Your task to perform on an android device: change timer sound Image 0: 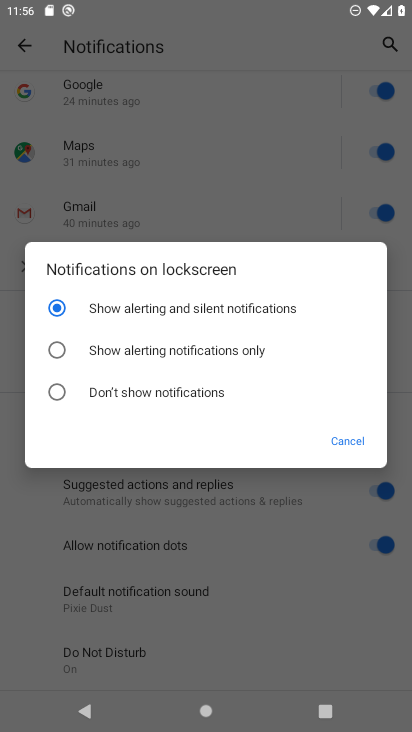
Step 0: press home button
Your task to perform on an android device: change timer sound Image 1: 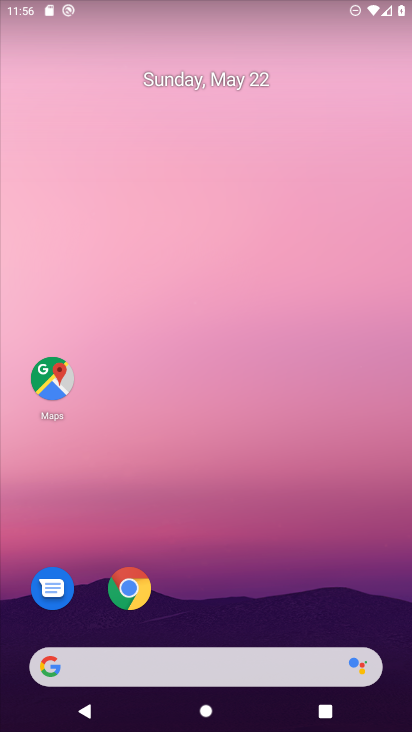
Step 1: drag from (267, 639) to (341, 100)
Your task to perform on an android device: change timer sound Image 2: 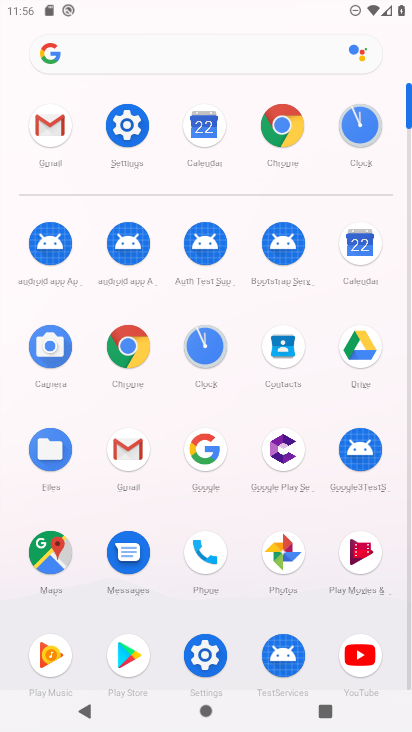
Step 2: click (203, 346)
Your task to perform on an android device: change timer sound Image 3: 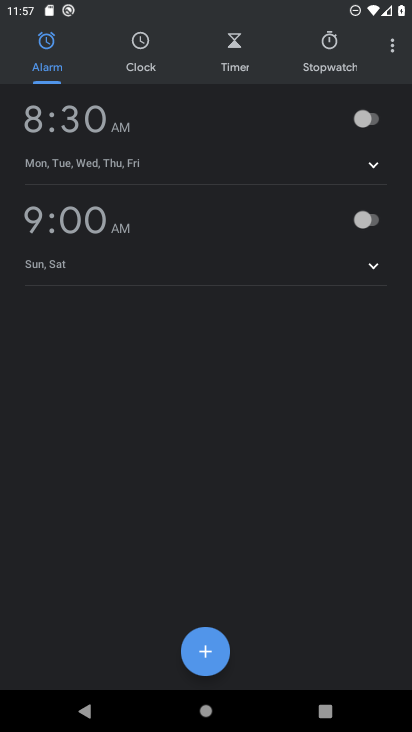
Step 3: click (397, 53)
Your task to perform on an android device: change timer sound Image 4: 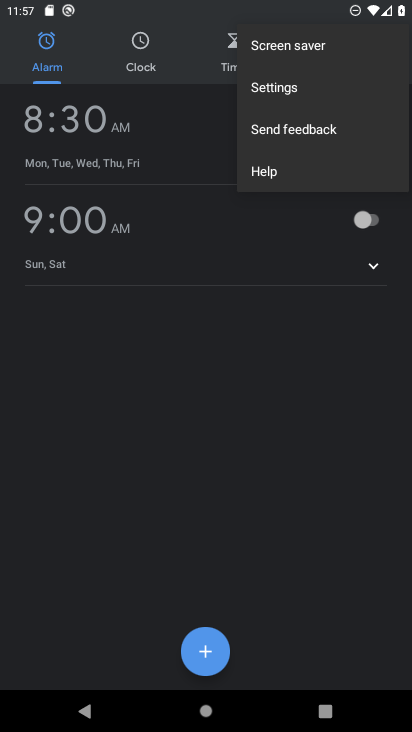
Step 4: click (263, 77)
Your task to perform on an android device: change timer sound Image 5: 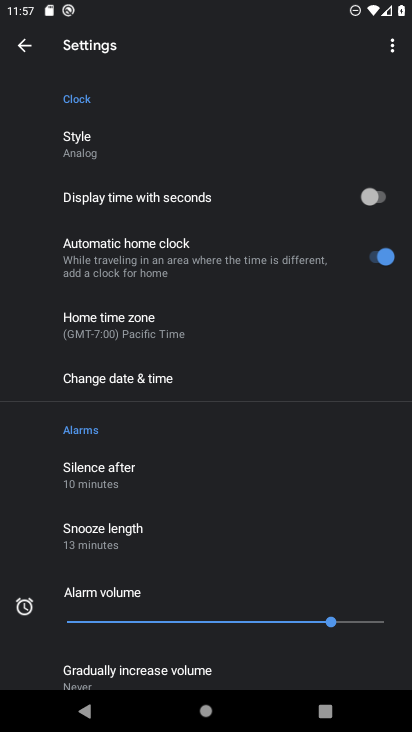
Step 5: drag from (204, 571) to (260, 140)
Your task to perform on an android device: change timer sound Image 6: 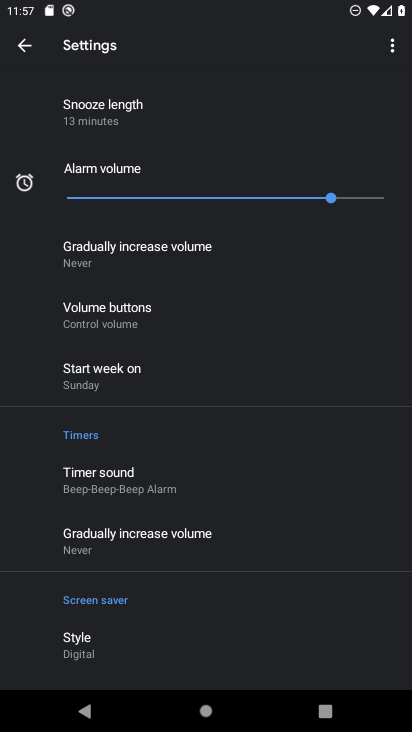
Step 6: click (151, 496)
Your task to perform on an android device: change timer sound Image 7: 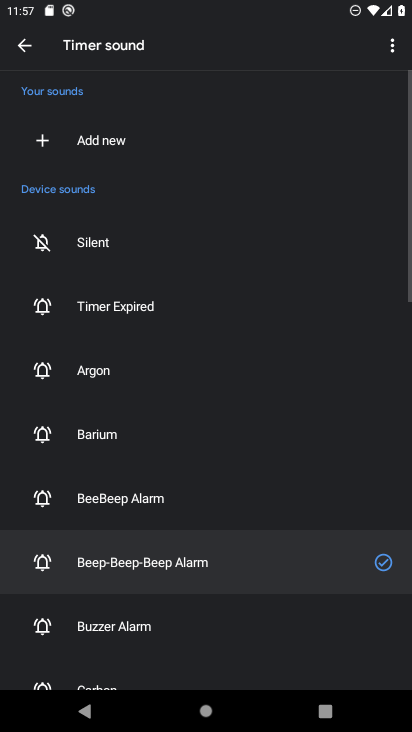
Step 7: click (124, 625)
Your task to perform on an android device: change timer sound Image 8: 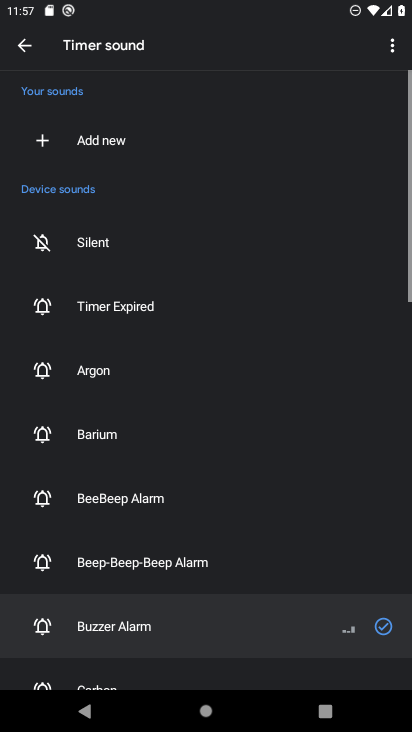
Step 8: task complete